Your task to perform on an android device: check storage Image 0: 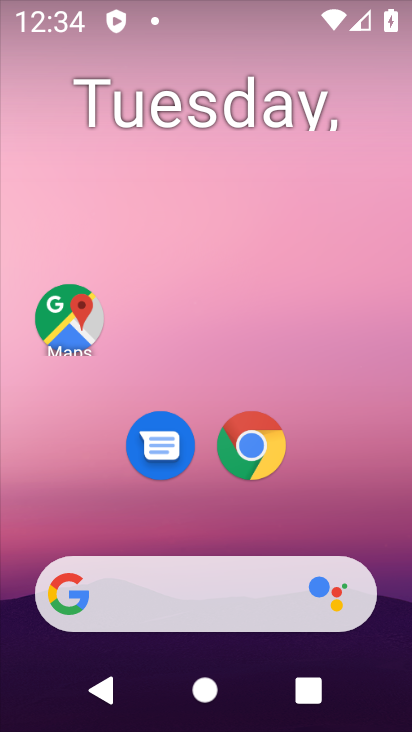
Step 0: drag from (78, 420) to (186, 84)
Your task to perform on an android device: check storage Image 1: 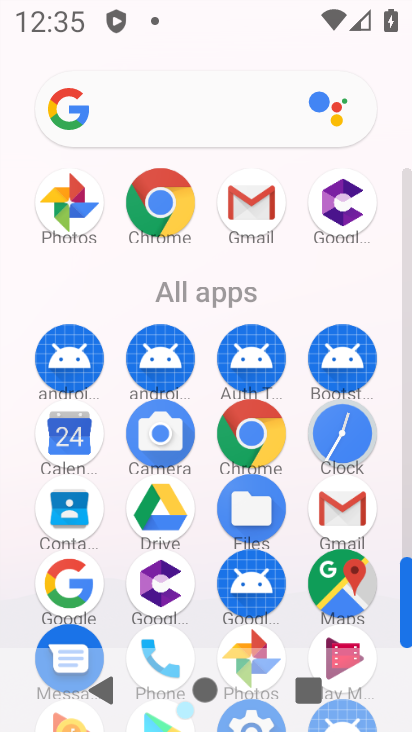
Step 1: drag from (109, 660) to (238, 378)
Your task to perform on an android device: check storage Image 2: 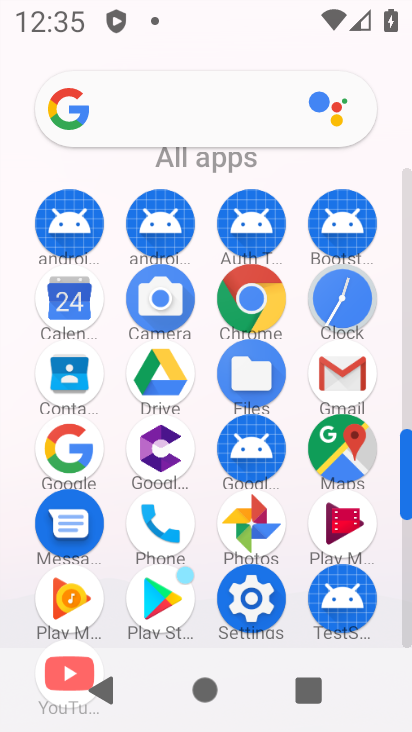
Step 2: click (253, 605)
Your task to perform on an android device: check storage Image 3: 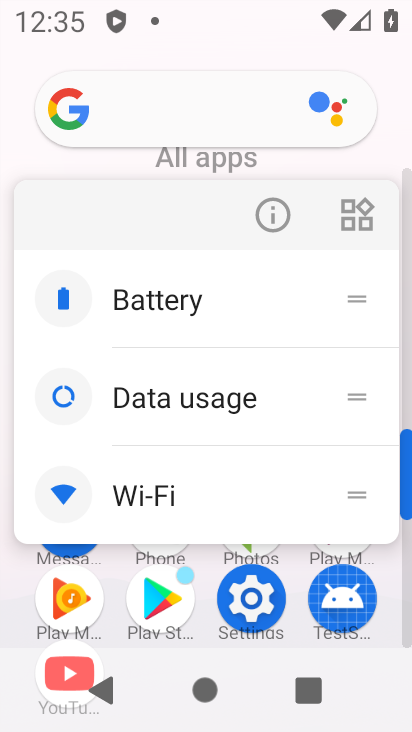
Step 3: click (252, 604)
Your task to perform on an android device: check storage Image 4: 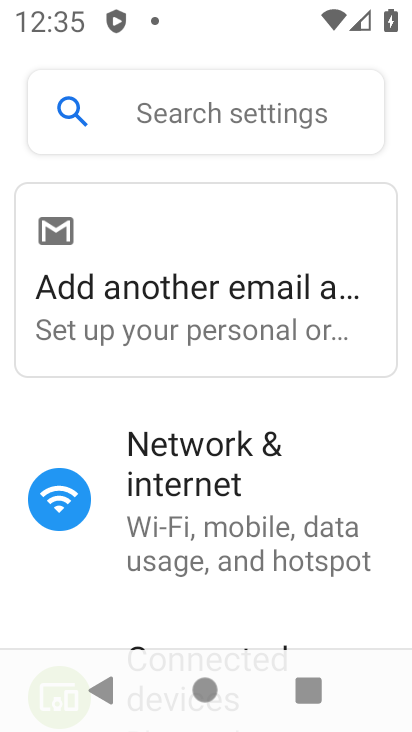
Step 4: drag from (77, 582) to (197, 242)
Your task to perform on an android device: check storage Image 5: 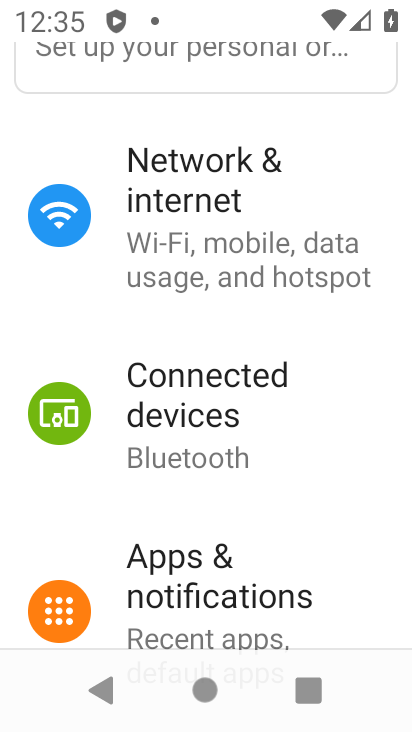
Step 5: drag from (191, 587) to (309, 163)
Your task to perform on an android device: check storage Image 6: 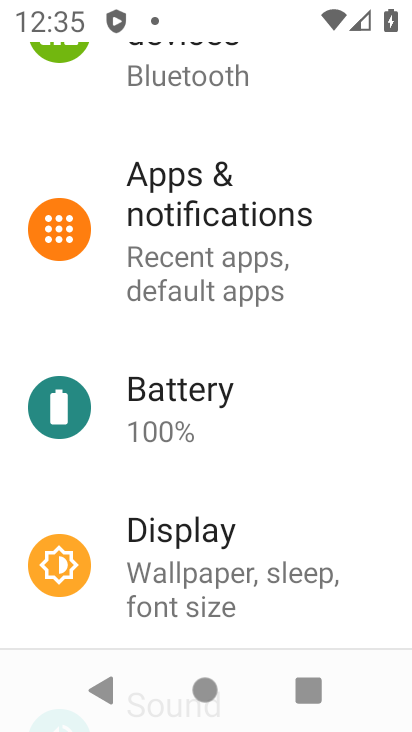
Step 6: drag from (189, 536) to (305, 191)
Your task to perform on an android device: check storage Image 7: 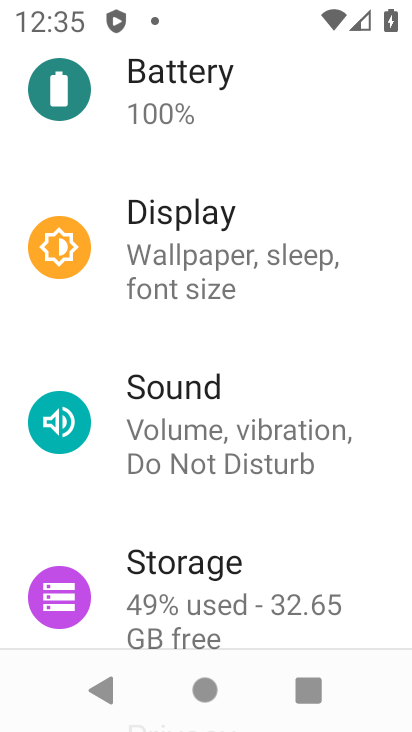
Step 7: drag from (153, 586) to (232, 321)
Your task to perform on an android device: check storage Image 8: 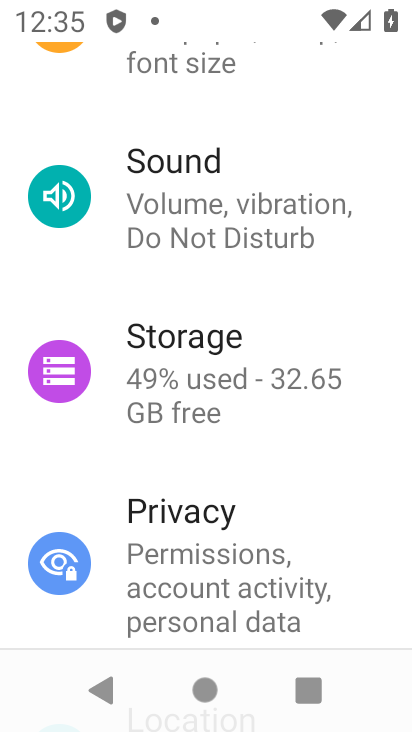
Step 8: click (195, 368)
Your task to perform on an android device: check storage Image 9: 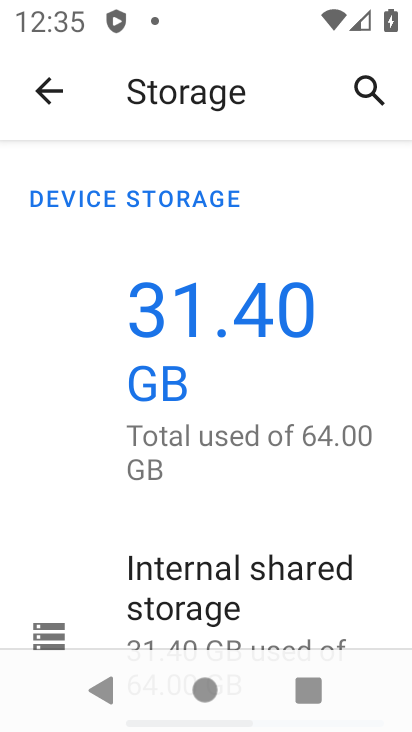
Step 9: task complete